Your task to perform on an android device: Open the stopwatch Image 0: 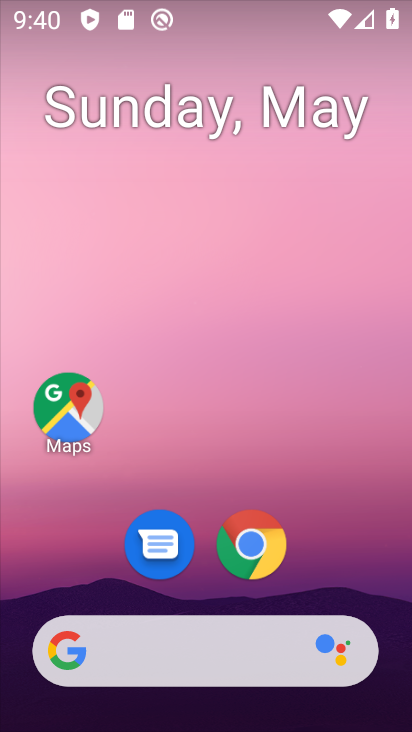
Step 0: drag from (366, 542) to (317, 53)
Your task to perform on an android device: Open the stopwatch Image 1: 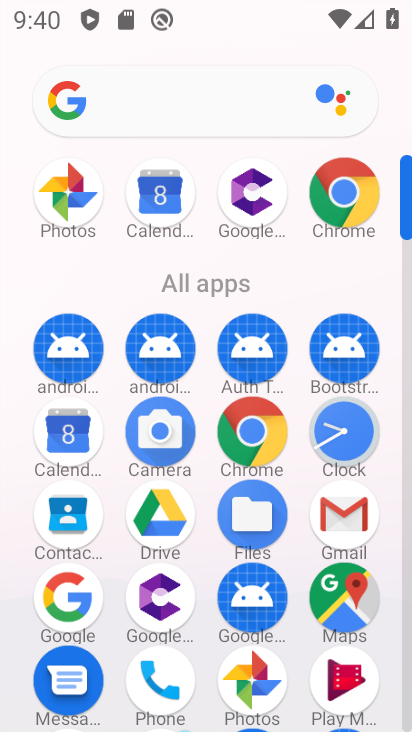
Step 1: click (355, 466)
Your task to perform on an android device: Open the stopwatch Image 2: 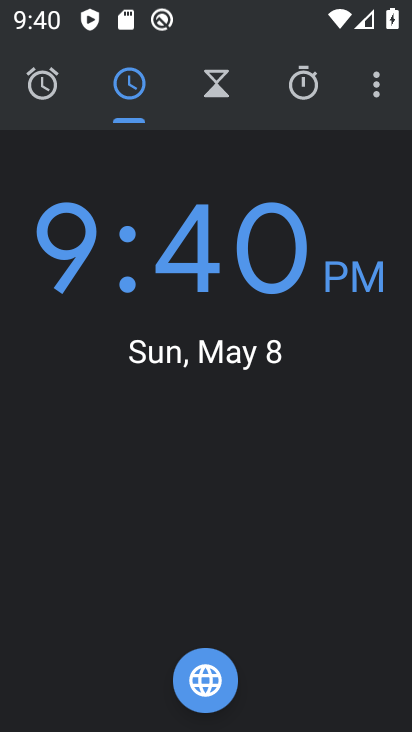
Step 2: click (296, 94)
Your task to perform on an android device: Open the stopwatch Image 3: 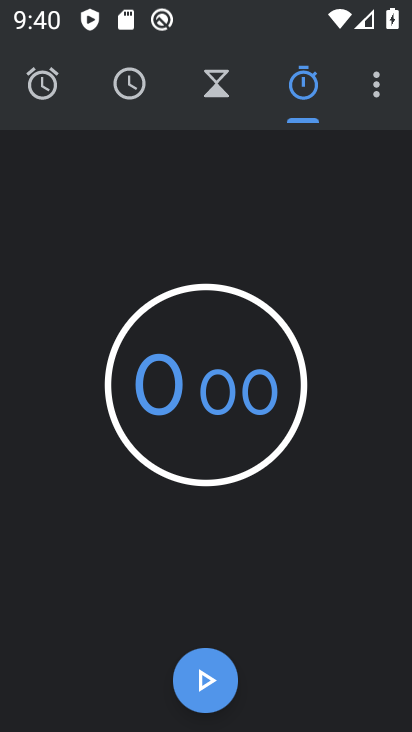
Step 3: task complete